Your task to perform on an android device: add a contact in the contacts app Image 0: 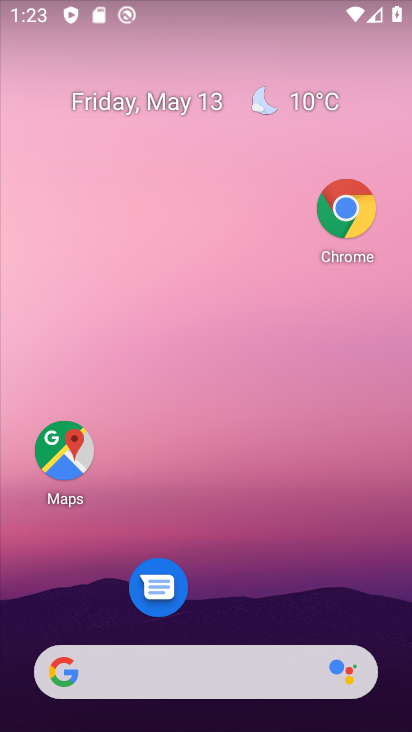
Step 0: drag from (212, 481) to (305, 82)
Your task to perform on an android device: add a contact in the contacts app Image 1: 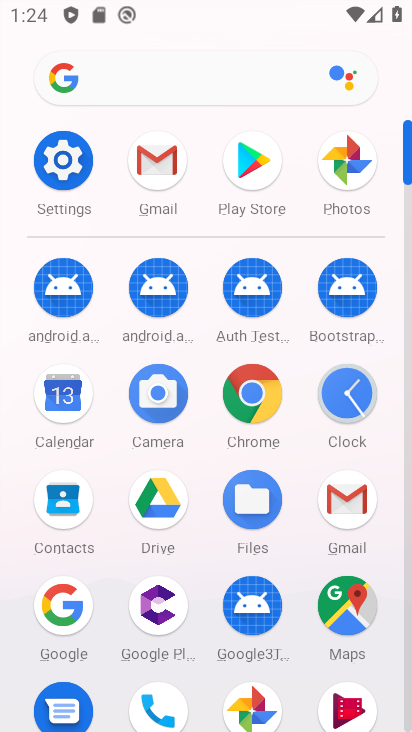
Step 1: click (57, 500)
Your task to perform on an android device: add a contact in the contacts app Image 2: 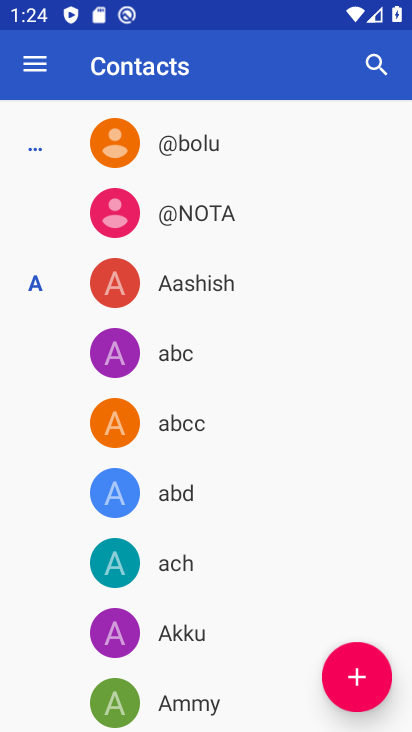
Step 2: click (366, 672)
Your task to perform on an android device: add a contact in the contacts app Image 3: 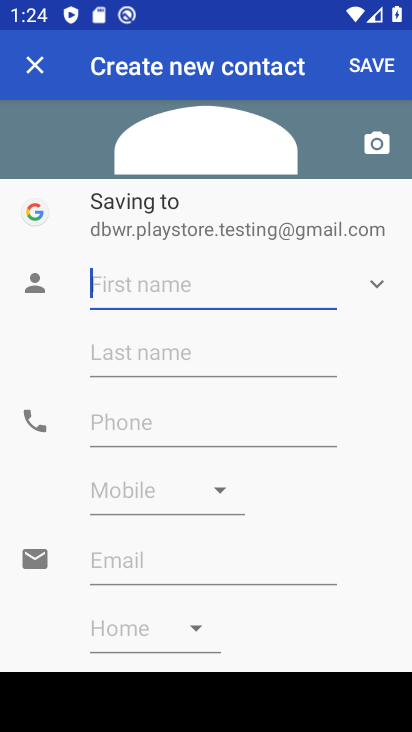
Step 3: click (115, 286)
Your task to perform on an android device: add a contact in the contacts app Image 4: 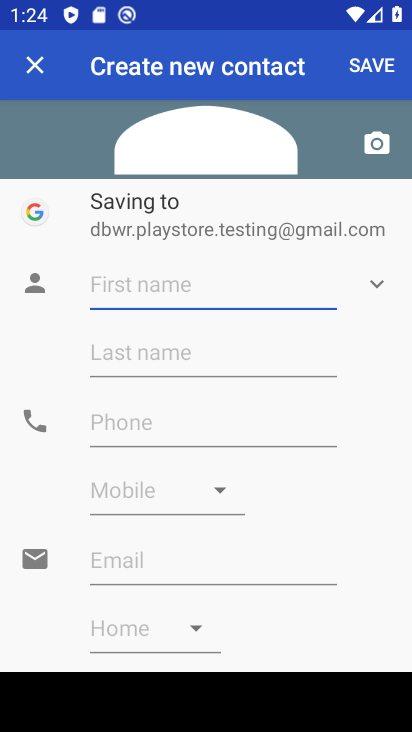
Step 4: type "vgv"
Your task to perform on an android device: add a contact in the contacts app Image 5: 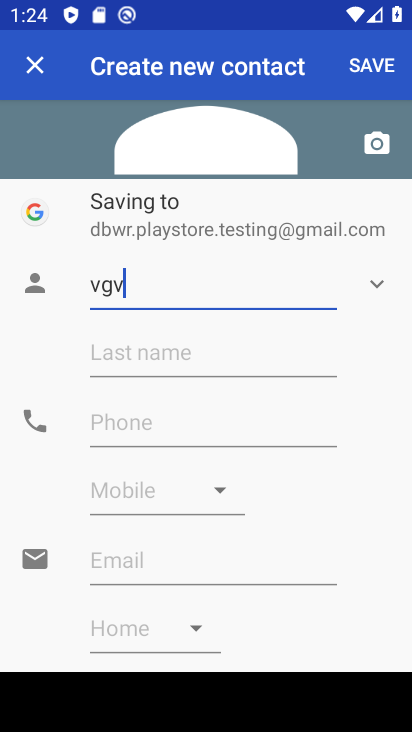
Step 5: click (118, 349)
Your task to perform on an android device: add a contact in the contacts app Image 6: 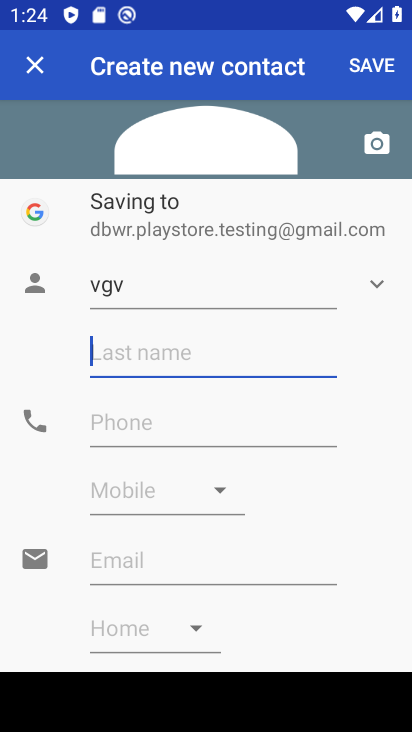
Step 6: type "fgfg"
Your task to perform on an android device: add a contact in the contacts app Image 7: 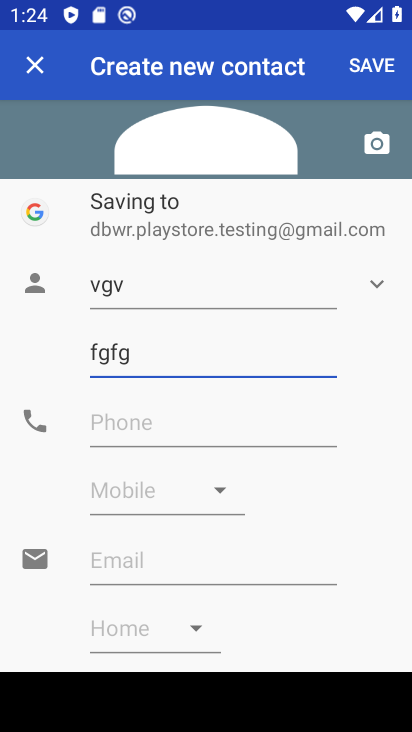
Step 7: click (376, 68)
Your task to perform on an android device: add a contact in the contacts app Image 8: 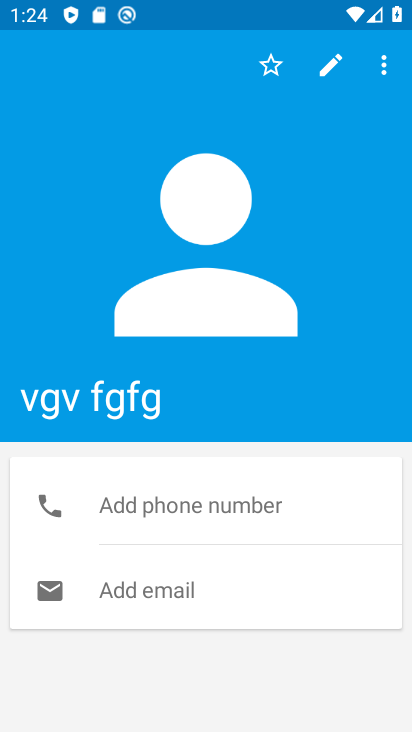
Step 8: task complete